Your task to perform on an android device: Go to settings Image 0: 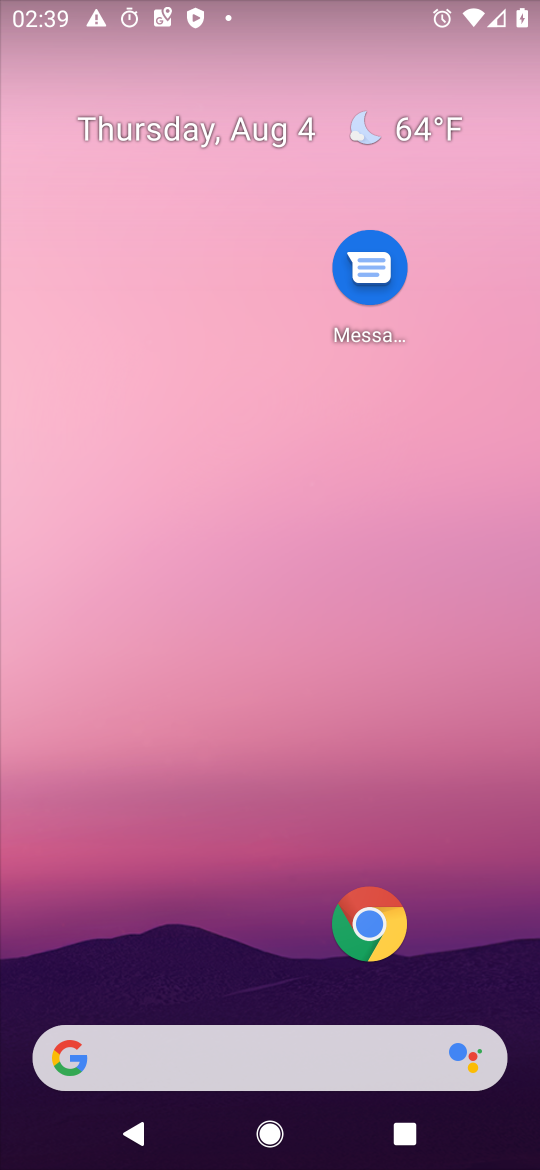
Step 0: drag from (103, 1037) to (305, 229)
Your task to perform on an android device: Go to settings Image 1: 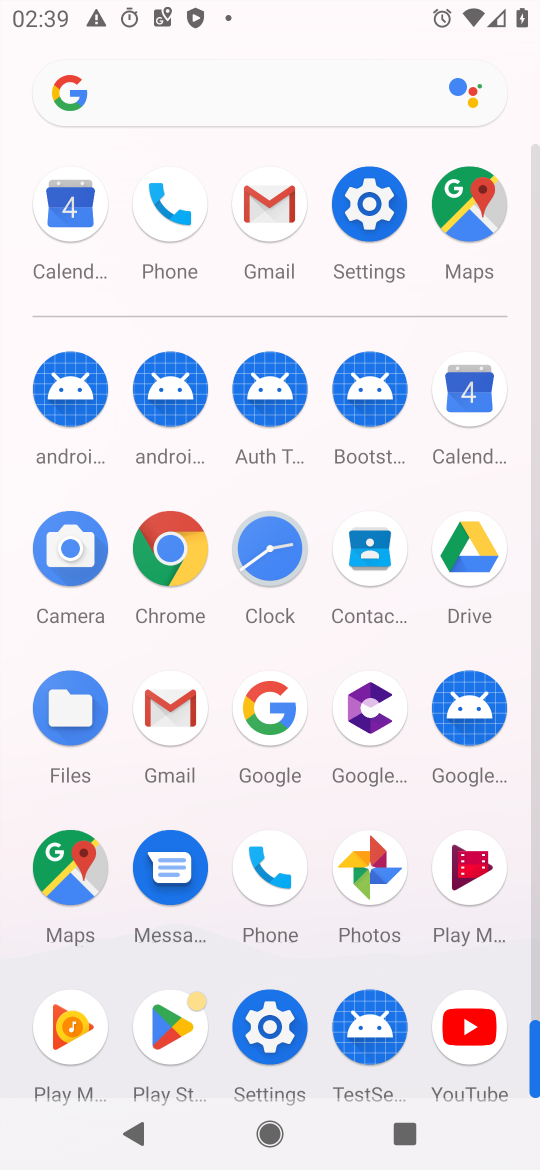
Step 1: click (246, 1033)
Your task to perform on an android device: Go to settings Image 2: 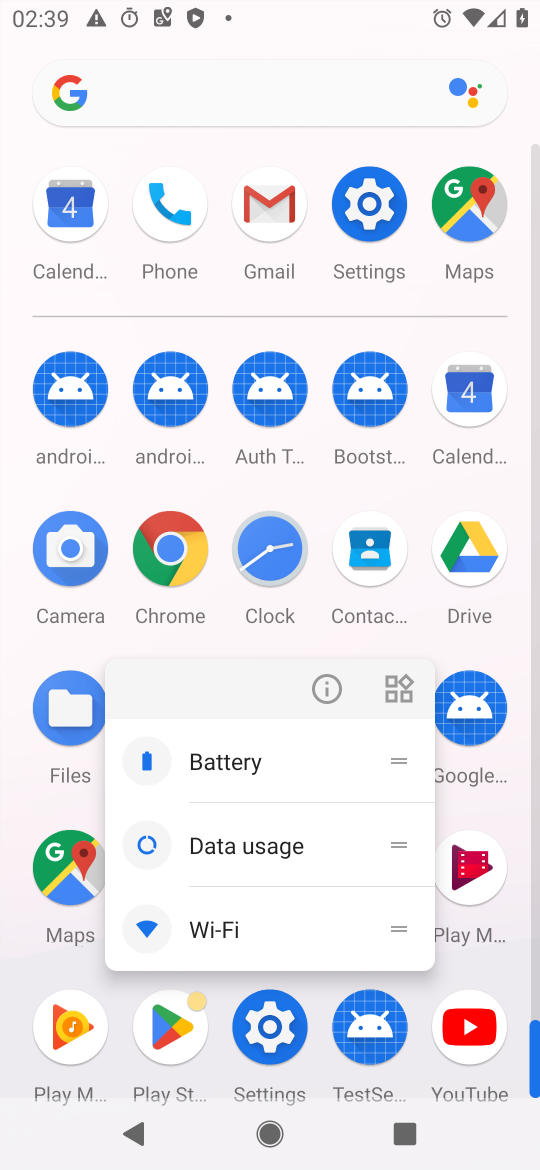
Step 2: click (279, 1043)
Your task to perform on an android device: Go to settings Image 3: 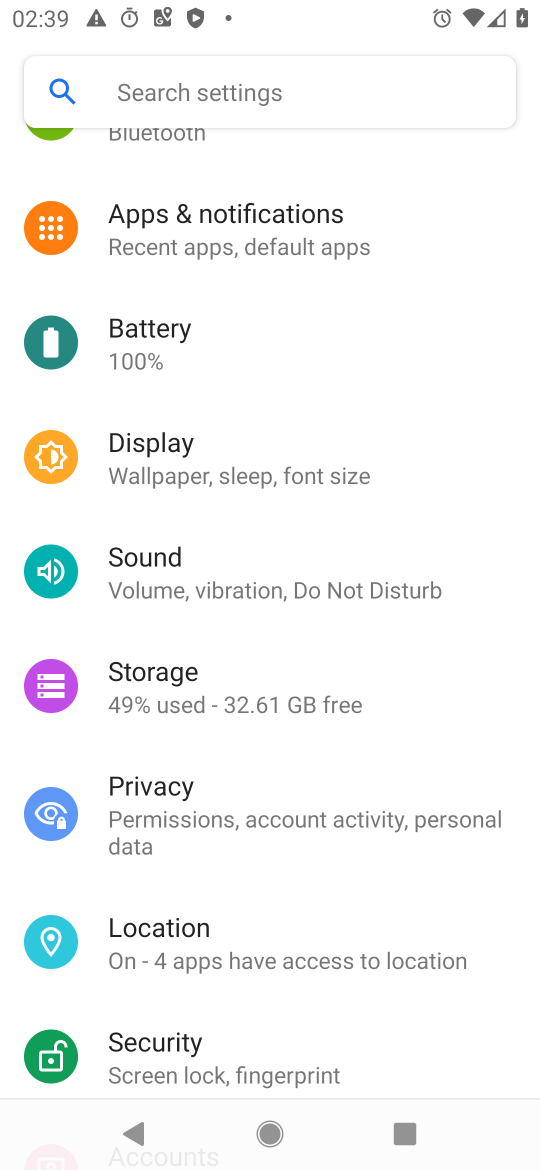
Step 3: task complete